Your task to perform on an android device: Go to Google Image 0: 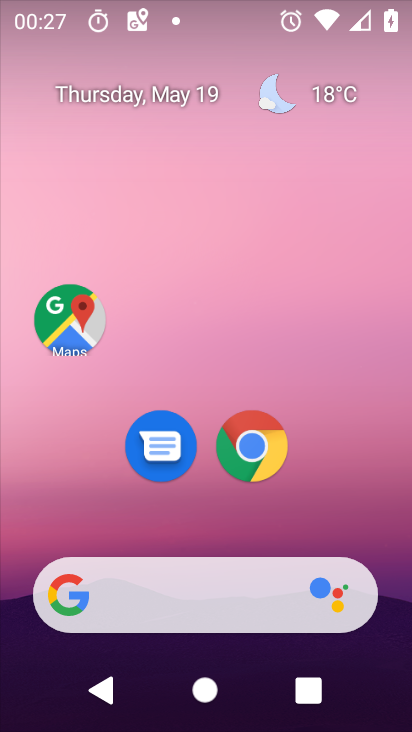
Step 0: drag from (180, 572) to (347, 165)
Your task to perform on an android device: Go to Google Image 1: 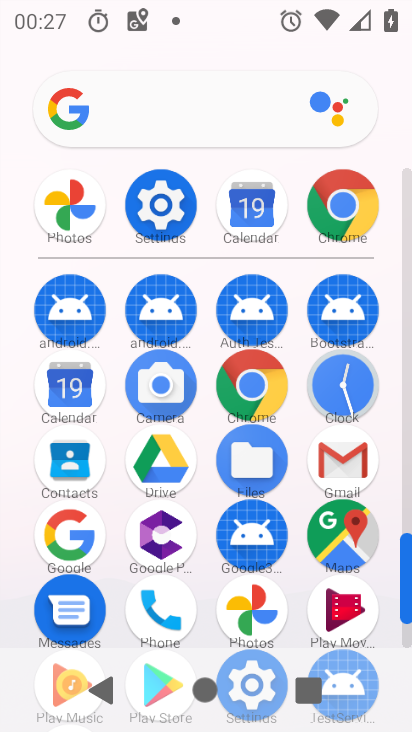
Step 1: click (85, 537)
Your task to perform on an android device: Go to Google Image 2: 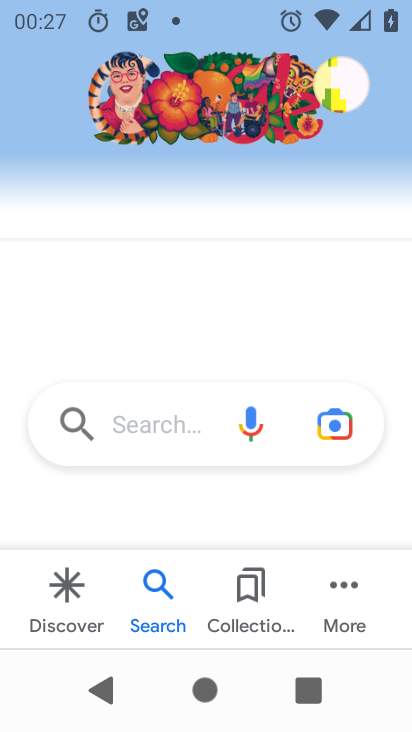
Step 2: task complete